Your task to perform on an android device: Is it going to rain this weekend? Image 0: 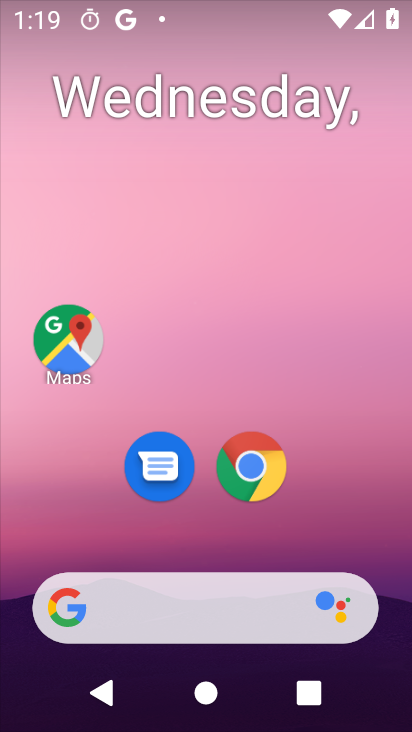
Step 0: click (224, 601)
Your task to perform on an android device: Is it going to rain this weekend? Image 1: 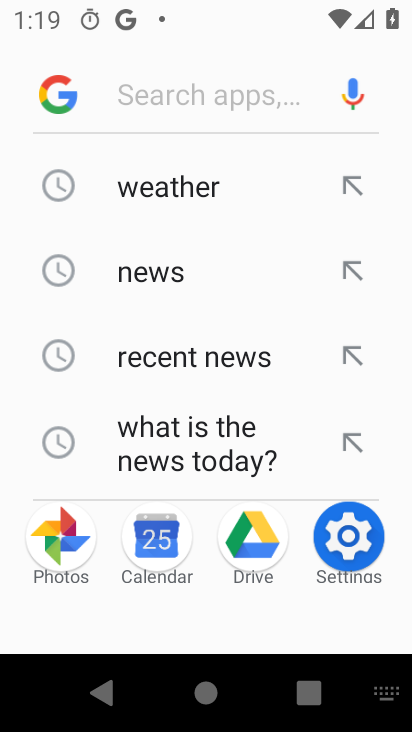
Step 1: click (231, 186)
Your task to perform on an android device: Is it going to rain this weekend? Image 2: 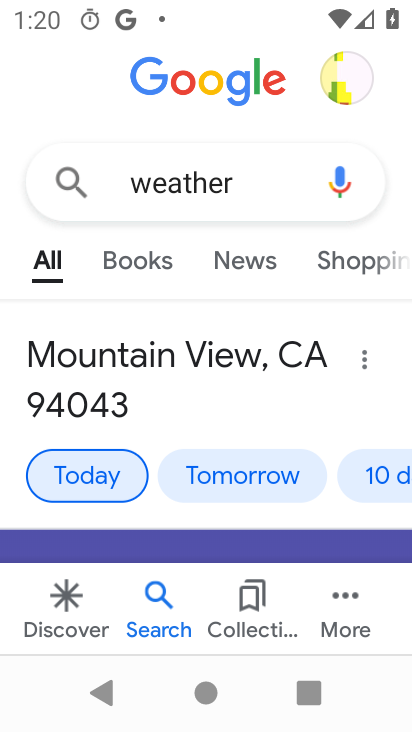
Step 2: click (360, 477)
Your task to perform on an android device: Is it going to rain this weekend? Image 3: 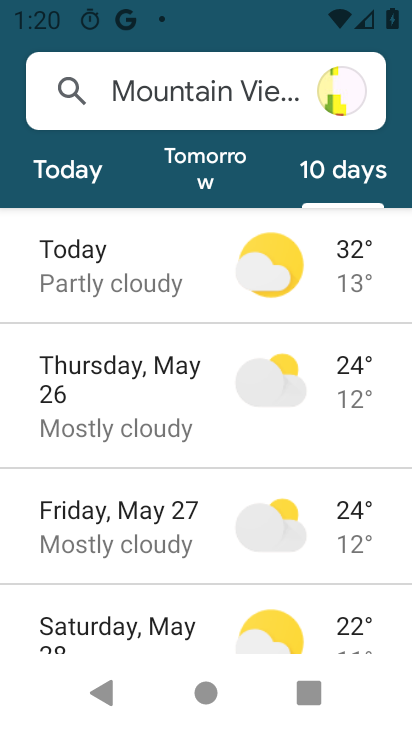
Step 3: task complete